Your task to perform on an android device: Go to Android settings Image 0: 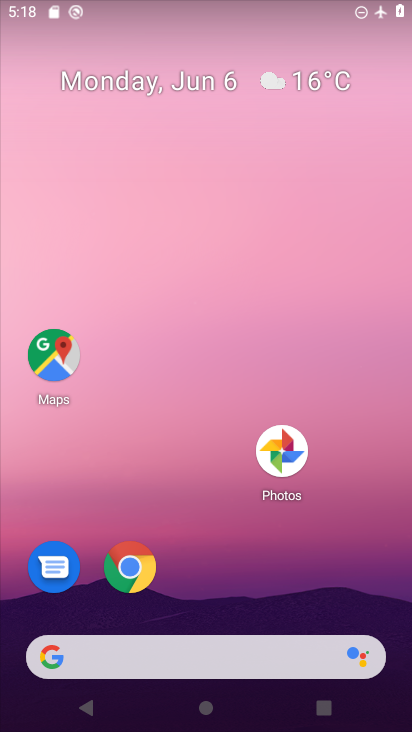
Step 0: drag from (289, 694) to (296, 271)
Your task to perform on an android device: Go to Android settings Image 1: 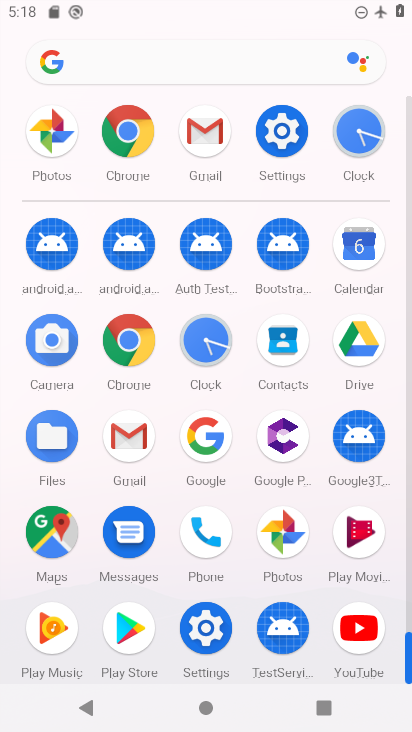
Step 1: click (283, 120)
Your task to perform on an android device: Go to Android settings Image 2: 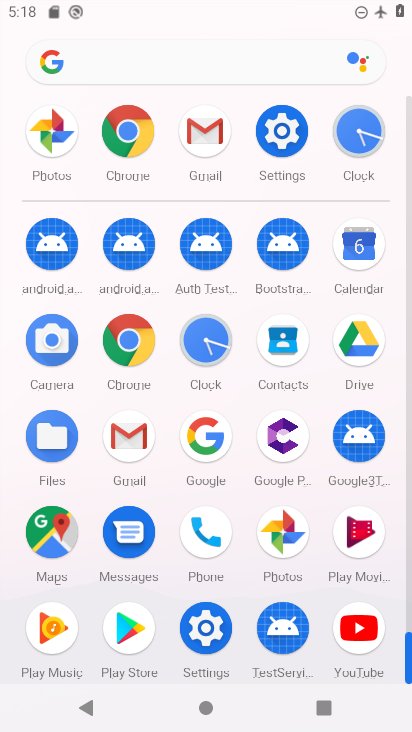
Step 2: click (266, 132)
Your task to perform on an android device: Go to Android settings Image 3: 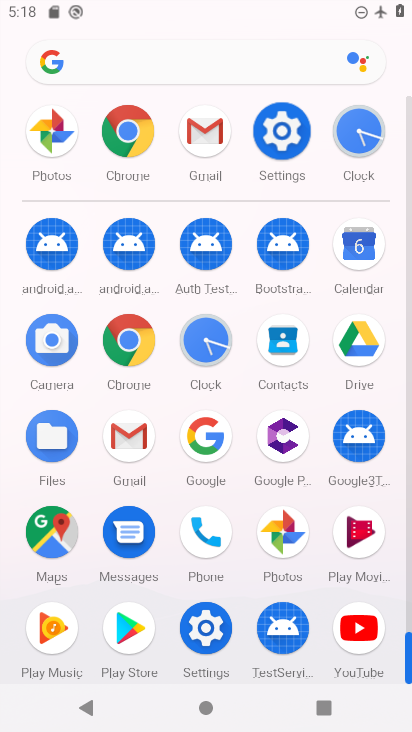
Step 3: click (265, 128)
Your task to perform on an android device: Go to Android settings Image 4: 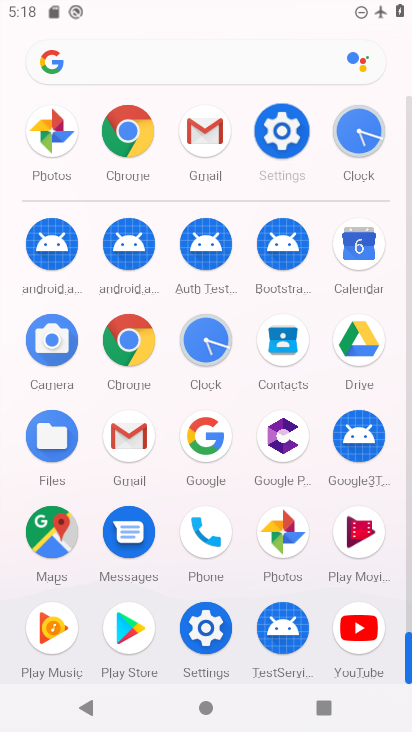
Step 4: click (282, 136)
Your task to perform on an android device: Go to Android settings Image 5: 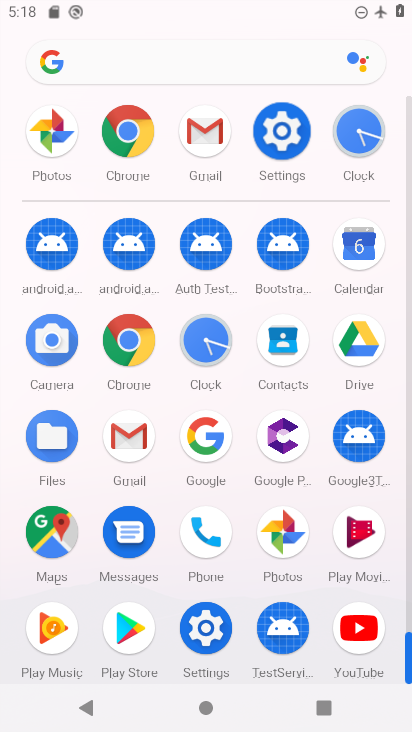
Step 5: click (277, 134)
Your task to perform on an android device: Go to Android settings Image 6: 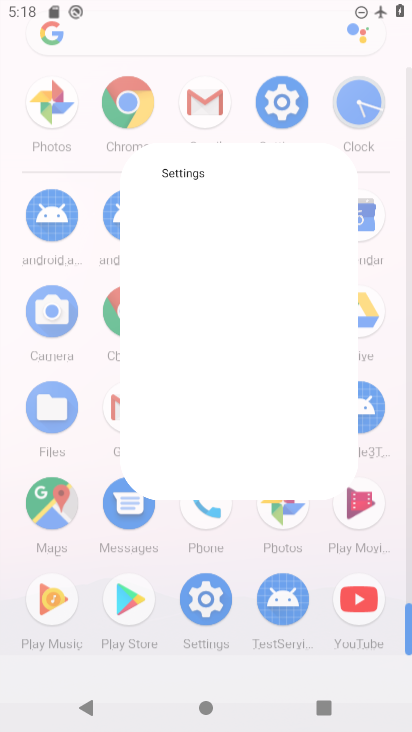
Step 6: click (269, 130)
Your task to perform on an android device: Go to Android settings Image 7: 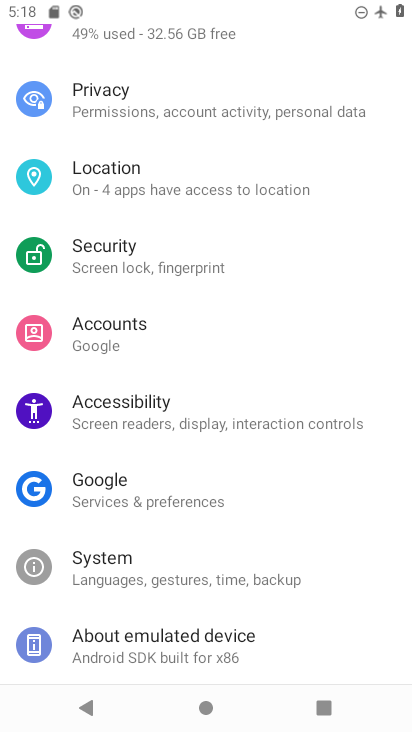
Step 7: click (289, 118)
Your task to perform on an android device: Go to Android settings Image 8: 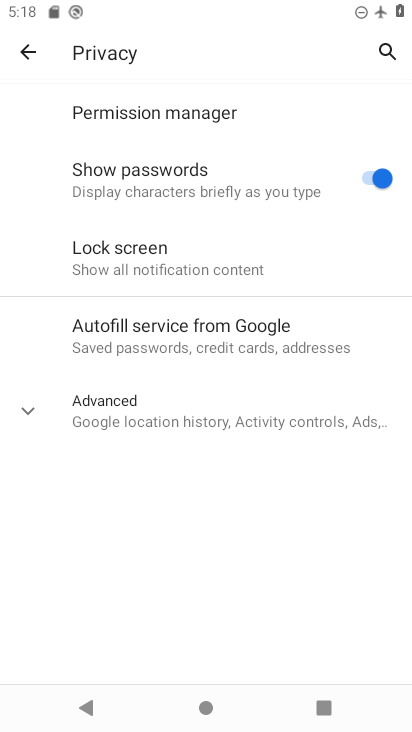
Step 8: task complete